Your task to perform on an android device: Open Wikipedia Image 0: 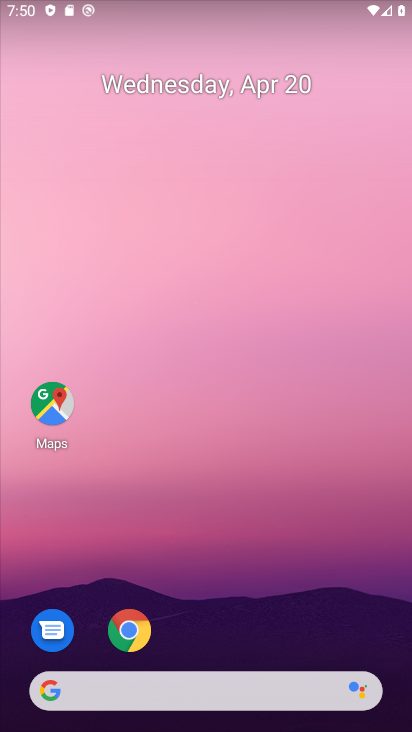
Step 0: drag from (245, 604) to (229, 35)
Your task to perform on an android device: Open Wikipedia Image 1: 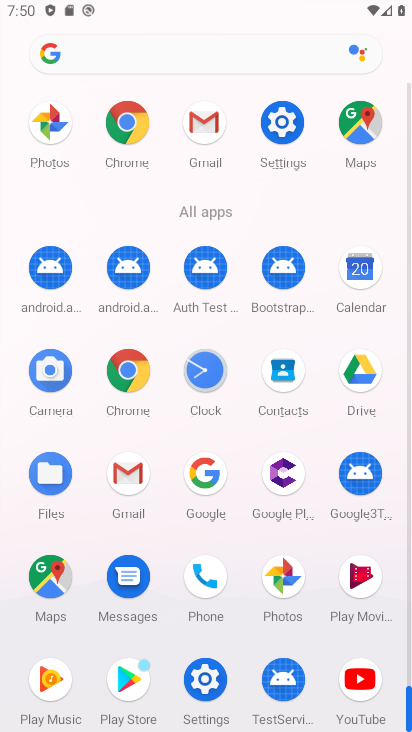
Step 1: click (133, 152)
Your task to perform on an android device: Open Wikipedia Image 2: 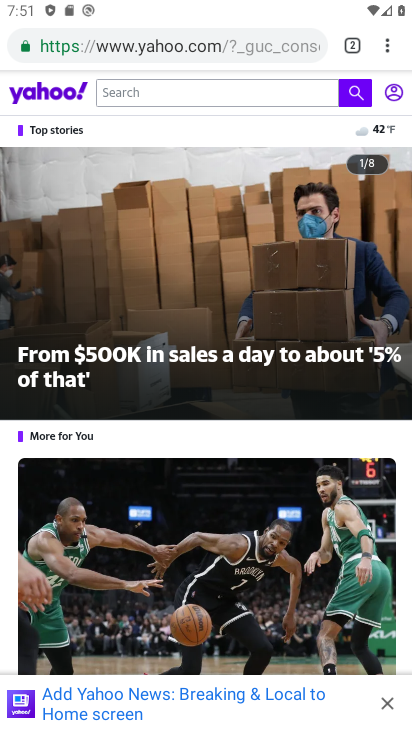
Step 2: drag from (282, 55) to (319, 206)
Your task to perform on an android device: Open Wikipedia Image 3: 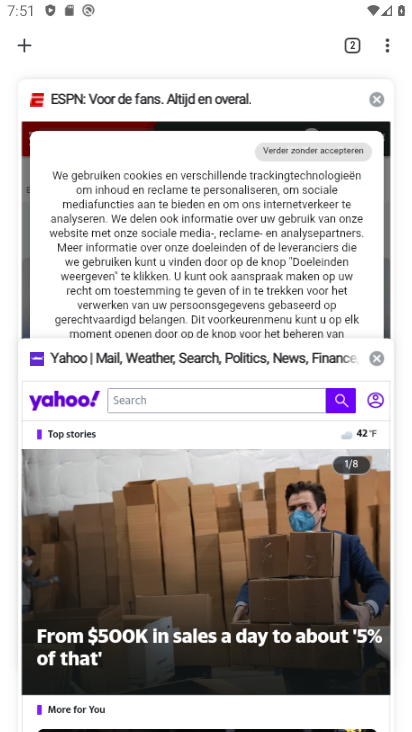
Step 3: click (25, 42)
Your task to perform on an android device: Open Wikipedia Image 4: 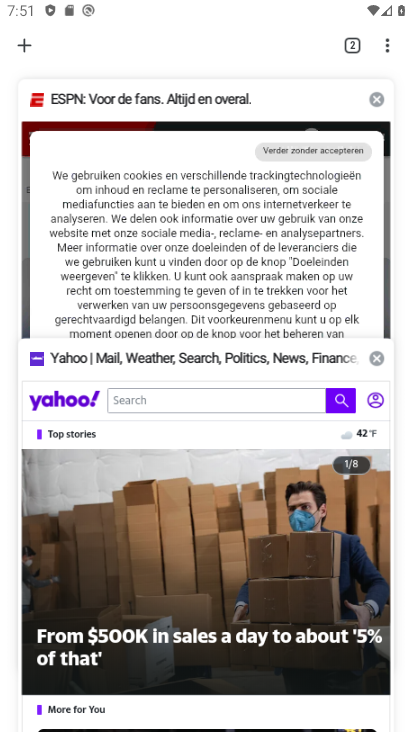
Step 4: click (30, 46)
Your task to perform on an android device: Open Wikipedia Image 5: 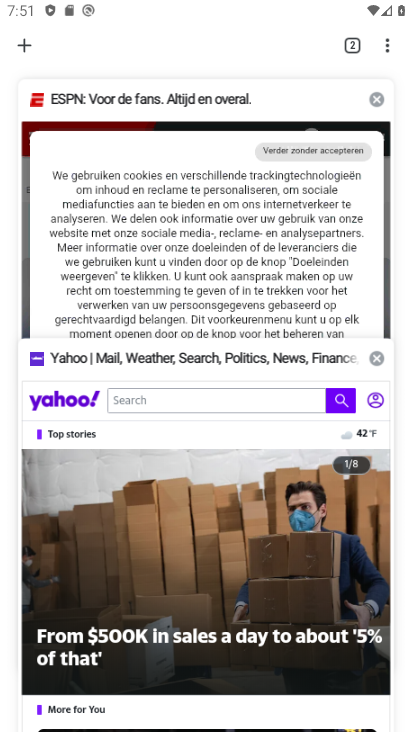
Step 5: click (34, 44)
Your task to perform on an android device: Open Wikipedia Image 6: 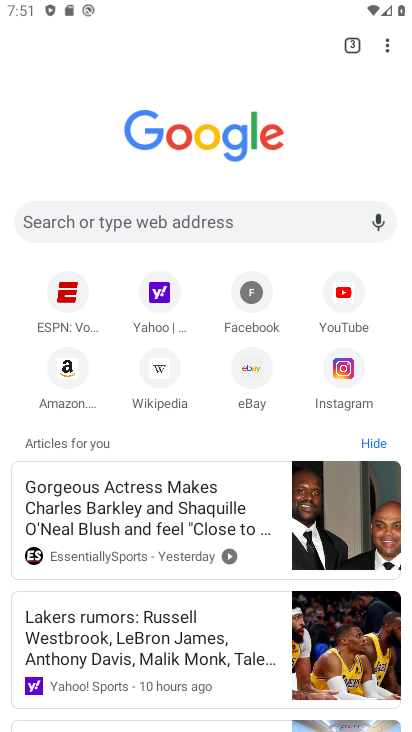
Step 6: click (152, 371)
Your task to perform on an android device: Open Wikipedia Image 7: 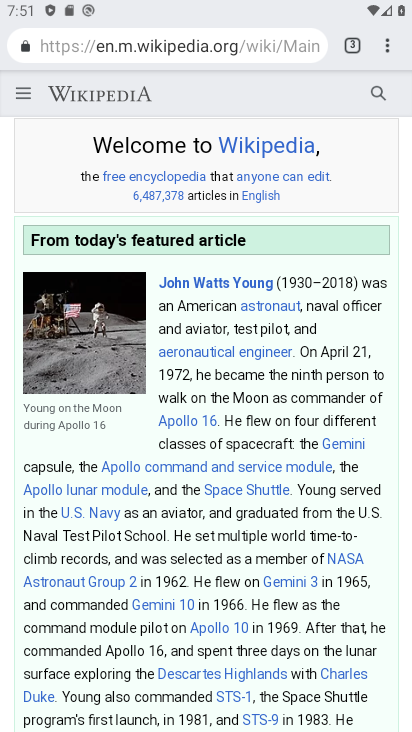
Step 7: task complete